Your task to perform on an android device: open chrome and create a bookmark for the current page Image 0: 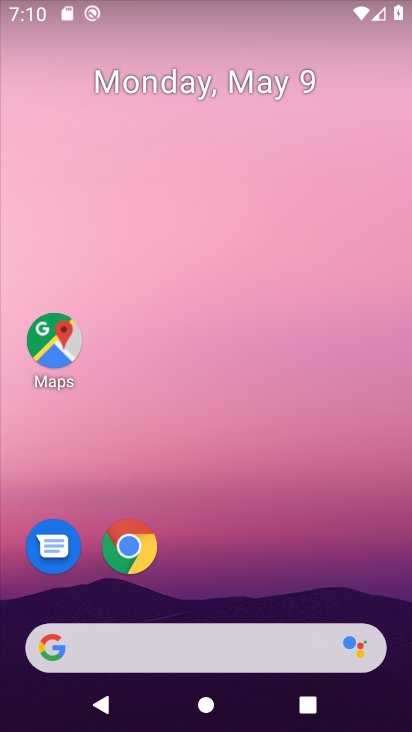
Step 0: drag from (243, 602) to (249, 66)
Your task to perform on an android device: open chrome and create a bookmark for the current page Image 1: 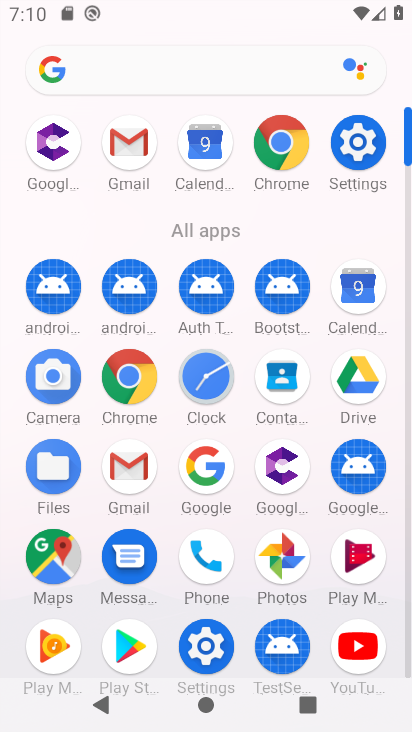
Step 1: click (287, 160)
Your task to perform on an android device: open chrome and create a bookmark for the current page Image 2: 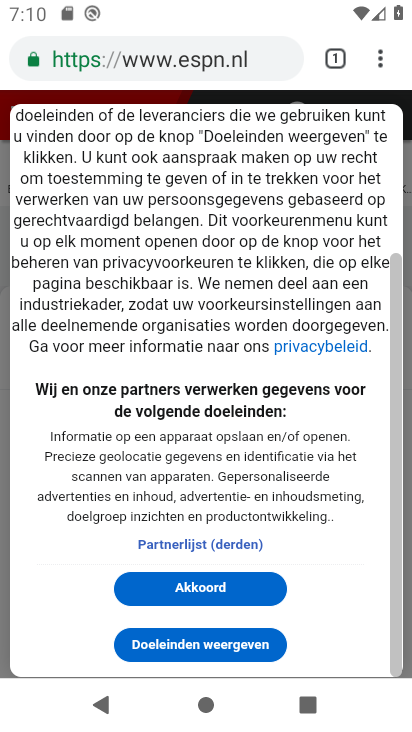
Step 2: click (383, 57)
Your task to perform on an android device: open chrome and create a bookmark for the current page Image 3: 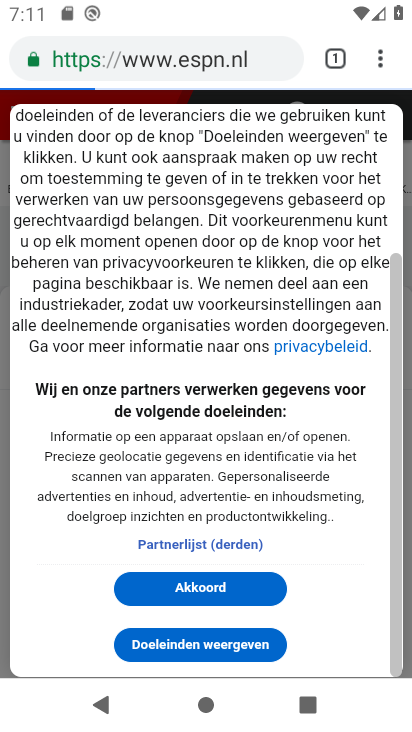
Step 3: click (206, 66)
Your task to perform on an android device: open chrome and create a bookmark for the current page Image 4: 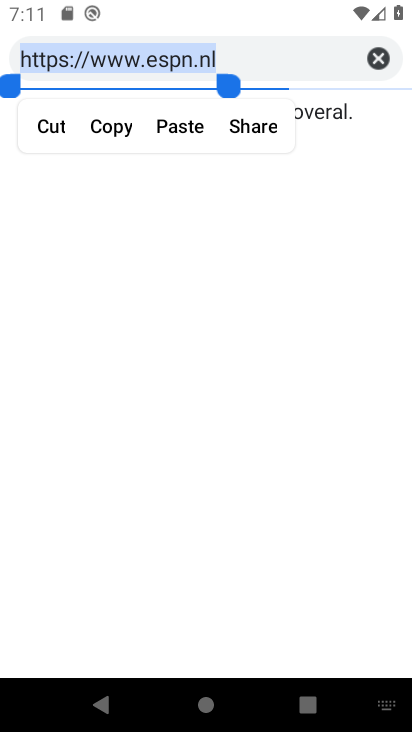
Step 4: click (382, 62)
Your task to perform on an android device: open chrome and create a bookmark for the current page Image 5: 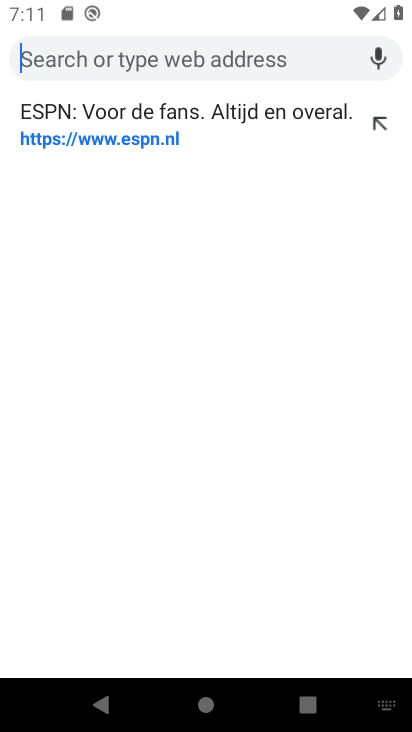
Step 5: click (279, 140)
Your task to perform on an android device: open chrome and create a bookmark for the current page Image 6: 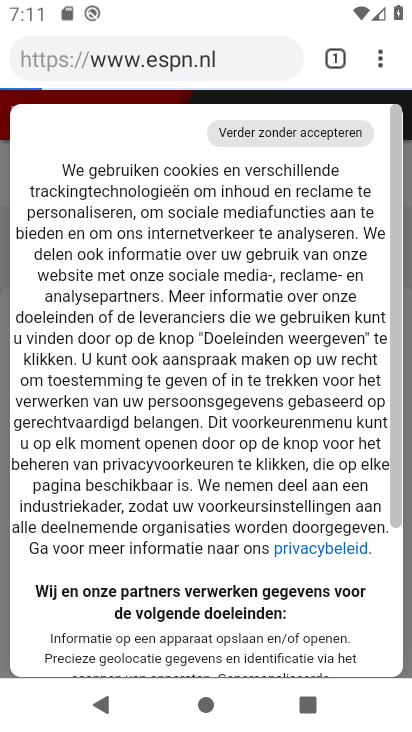
Step 6: task complete